Your task to perform on an android device: Open Amazon Image 0: 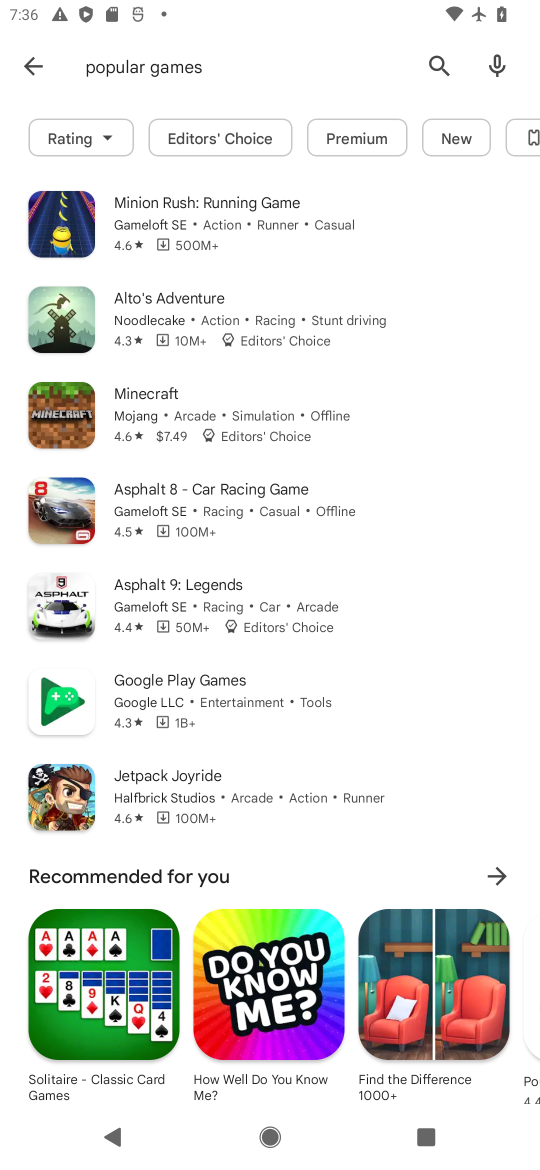
Step 0: press home button
Your task to perform on an android device: Open Amazon Image 1: 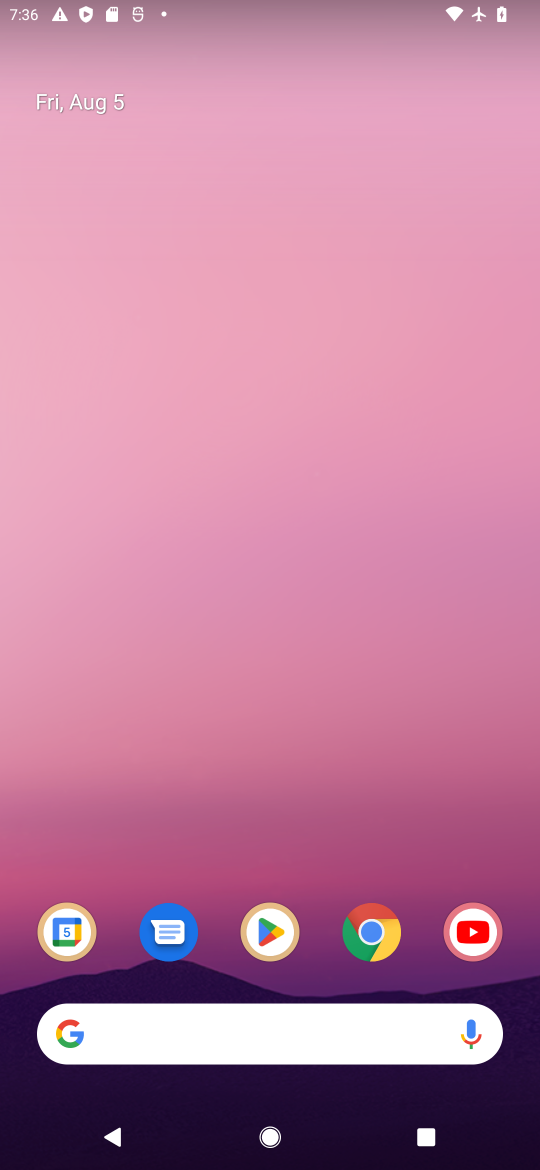
Step 1: drag from (207, 1029) to (221, 151)
Your task to perform on an android device: Open Amazon Image 2: 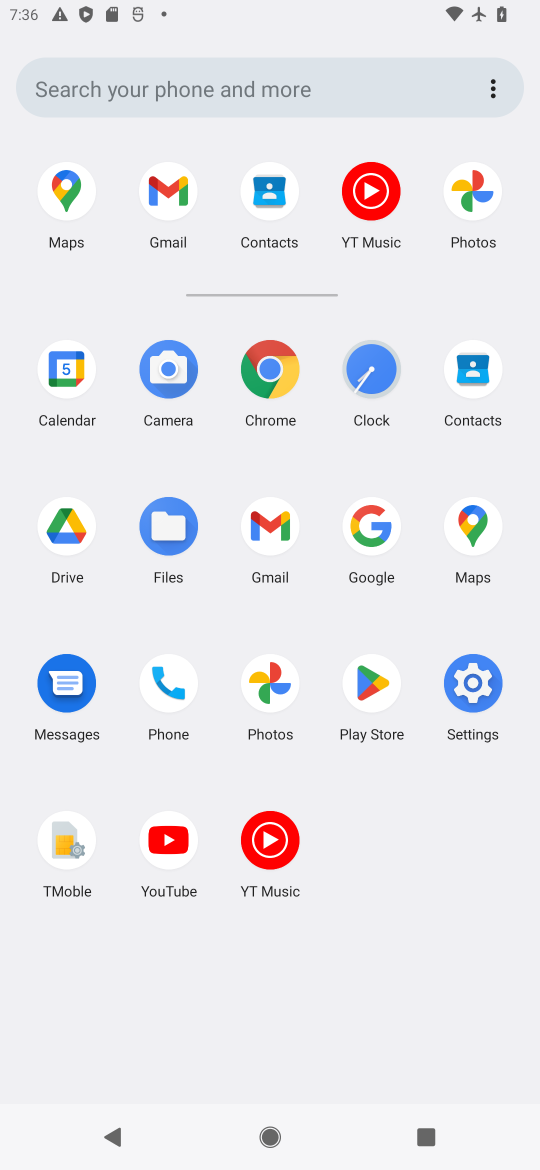
Step 2: click (272, 372)
Your task to perform on an android device: Open Amazon Image 3: 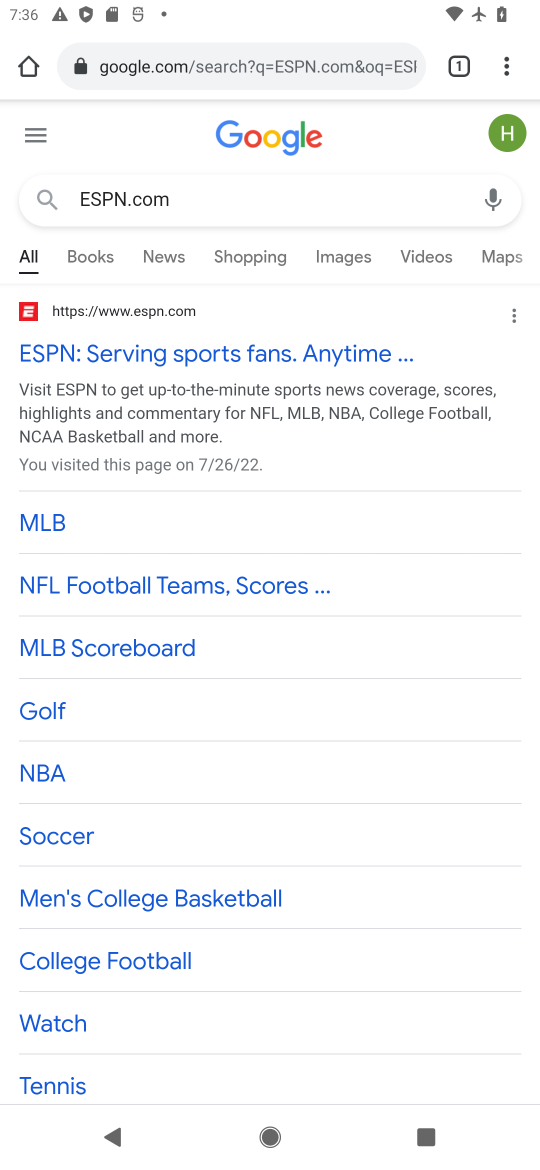
Step 3: click (367, 57)
Your task to perform on an android device: Open Amazon Image 4: 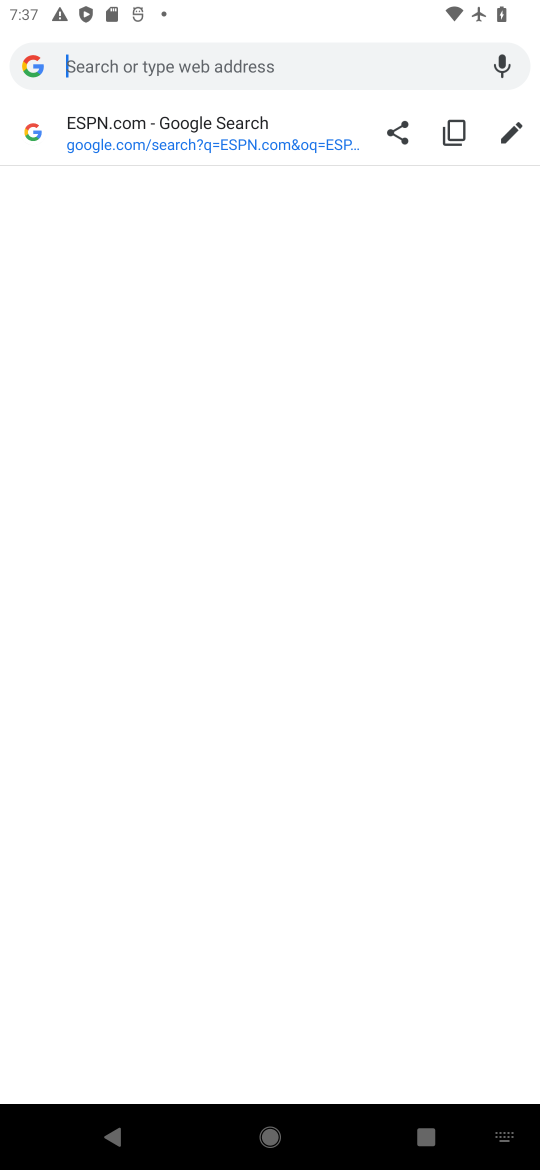
Step 4: type "Amazon"
Your task to perform on an android device: Open Amazon Image 5: 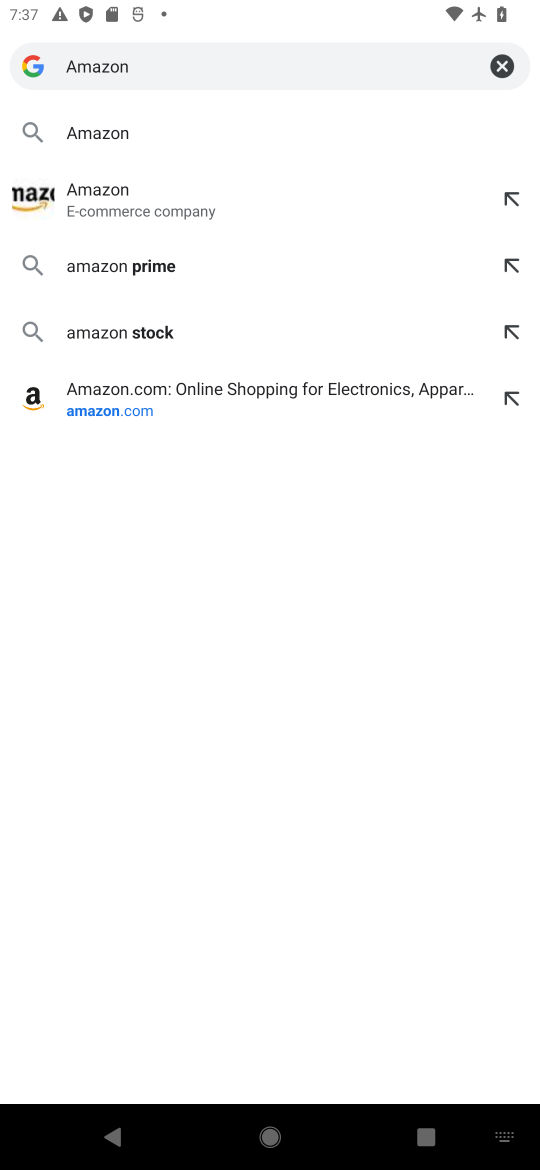
Step 5: click (150, 213)
Your task to perform on an android device: Open Amazon Image 6: 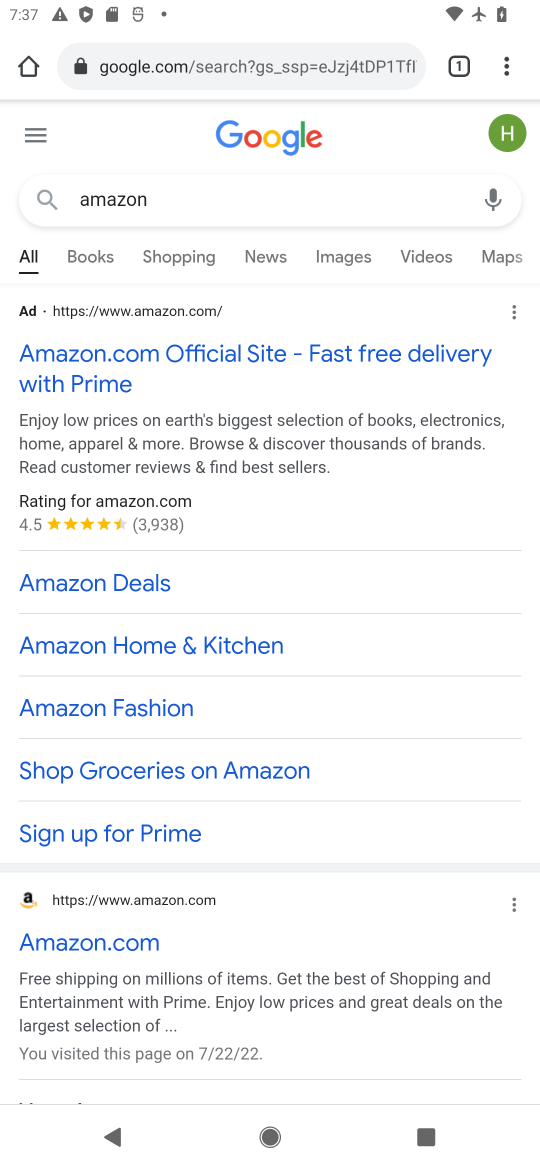
Step 6: click (137, 947)
Your task to perform on an android device: Open Amazon Image 7: 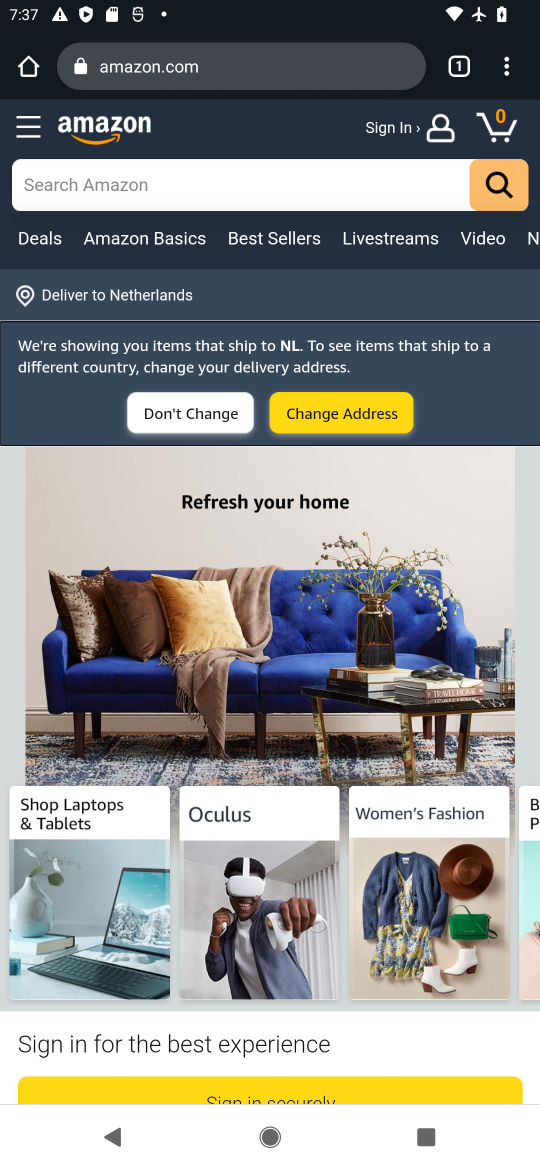
Step 7: task complete